Your task to perform on an android device: Search for seafood restaurants on Google Maps Image 0: 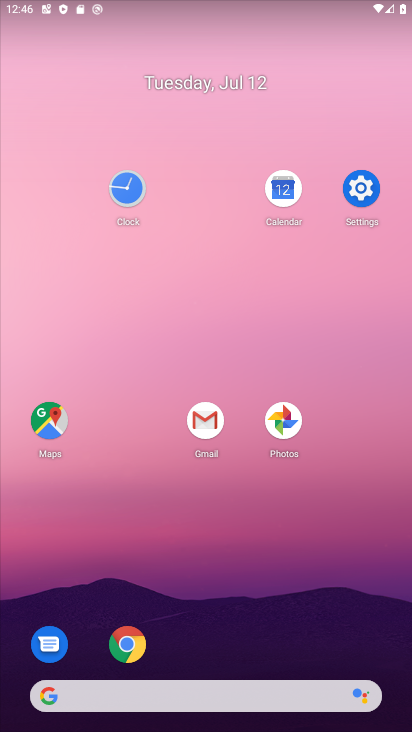
Step 0: click (55, 429)
Your task to perform on an android device: Search for seafood restaurants on Google Maps Image 1: 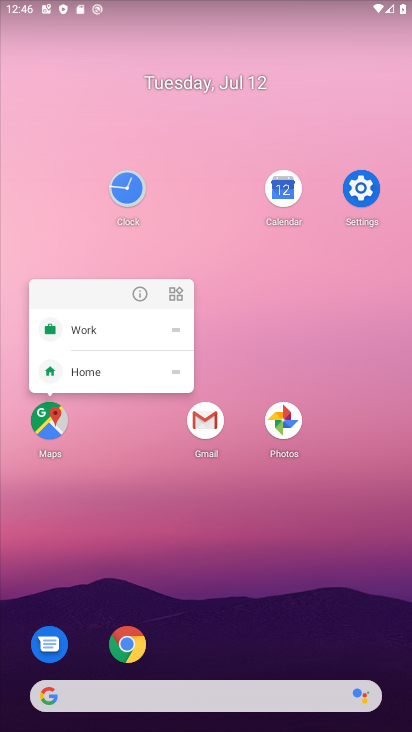
Step 1: click (59, 423)
Your task to perform on an android device: Search for seafood restaurants on Google Maps Image 2: 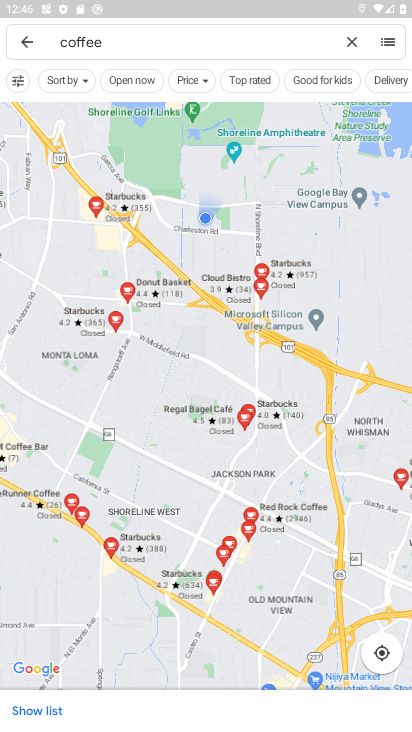
Step 2: click (216, 46)
Your task to perform on an android device: Search for seafood restaurants on Google Maps Image 3: 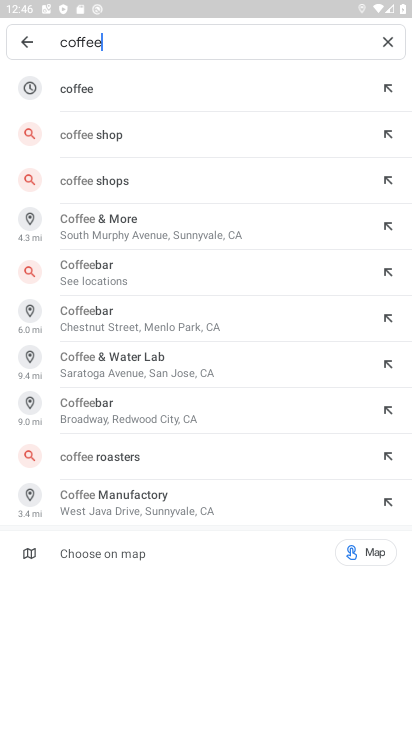
Step 3: click (389, 33)
Your task to perform on an android device: Search for seafood restaurants on Google Maps Image 4: 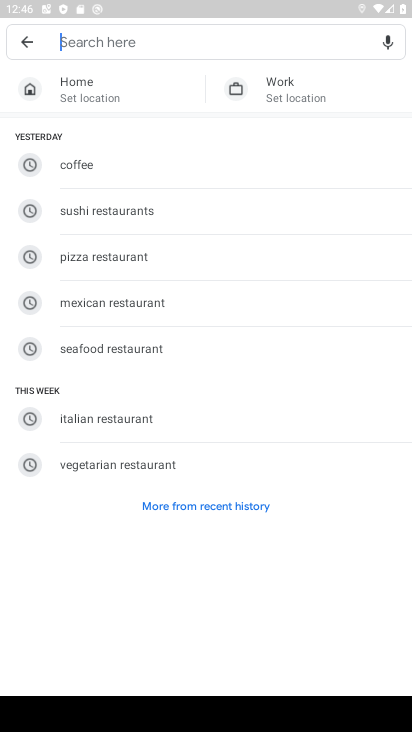
Step 4: type "seafood restaurants"
Your task to perform on an android device: Search for seafood restaurants on Google Maps Image 5: 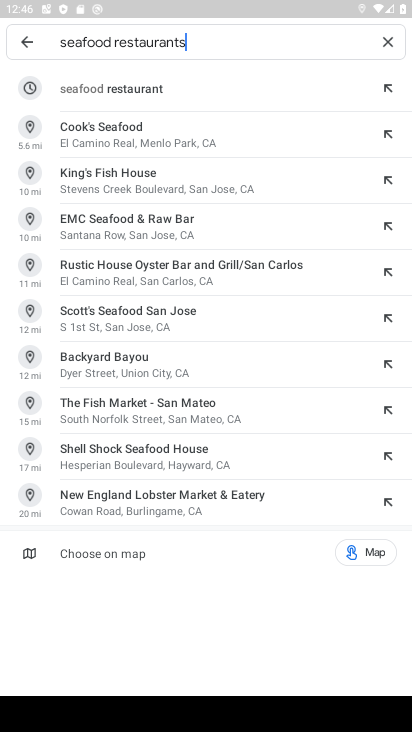
Step 5: click (154, 92)
Your task to perform on an android device: Search for seafood restaurants on Google Maps Image 6: 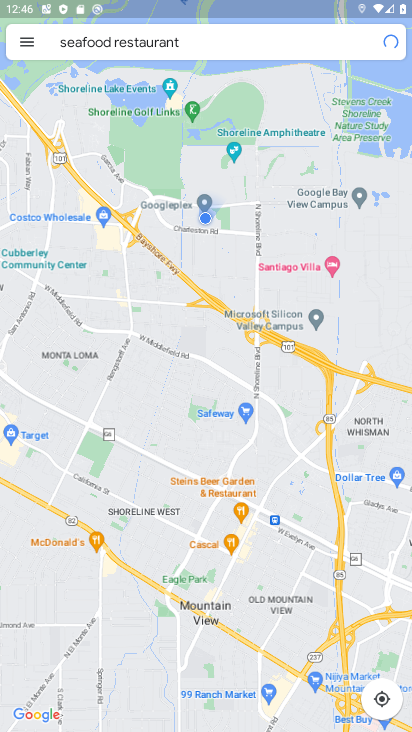
Step 6: task complete